Your task to perform on an android device: Go to wifi settings Image 0: 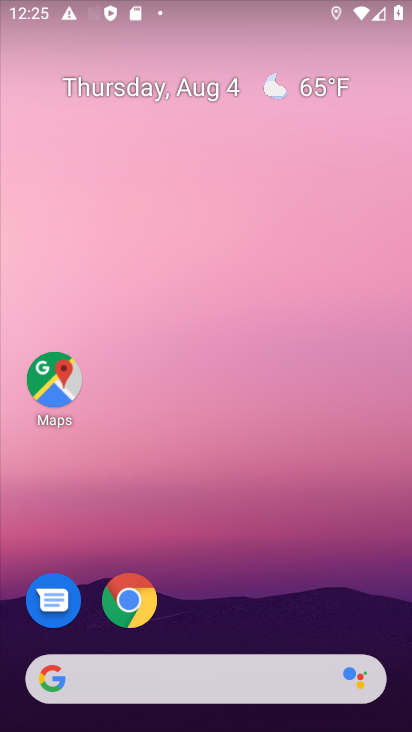
Step 0: drag from (204, 632) to (199, 49)
Your task to perform on an android device: Go to wifi settings Image 1: 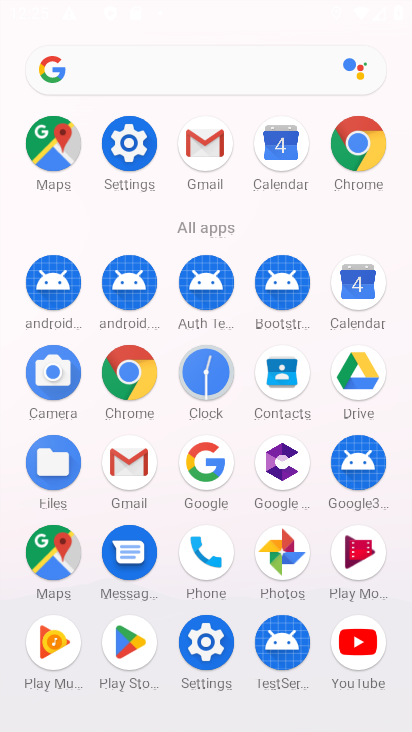
Step 1: click (210, 652)
Your task to perform on an android device: Go to wifi settings Image 2: 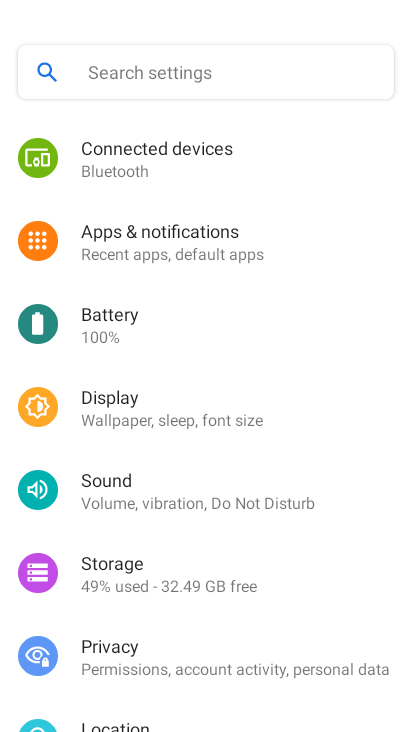
Step 2: drag from (181, 142) to (131, 514)
Your task to perform on an android device: Go to wifi settings Image 3: 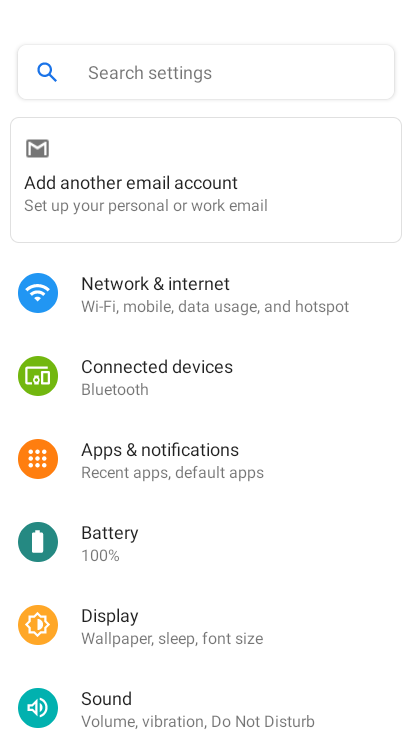
Step 3: click (108, 308)
Your task to perform on an android device: Go to wifi settings Image 4: 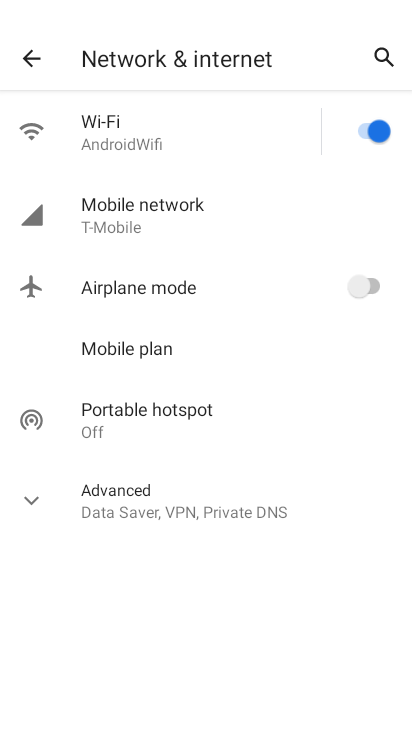
Step 4: click (106, 133)
Your task to perform on an android device: Go to wifi settings Image 5: 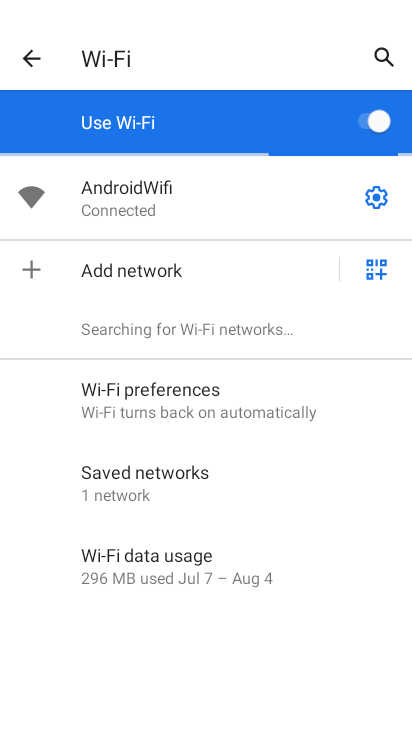
Step 5: task complete